Your task to perform on an android device: Check the weather Image 0: 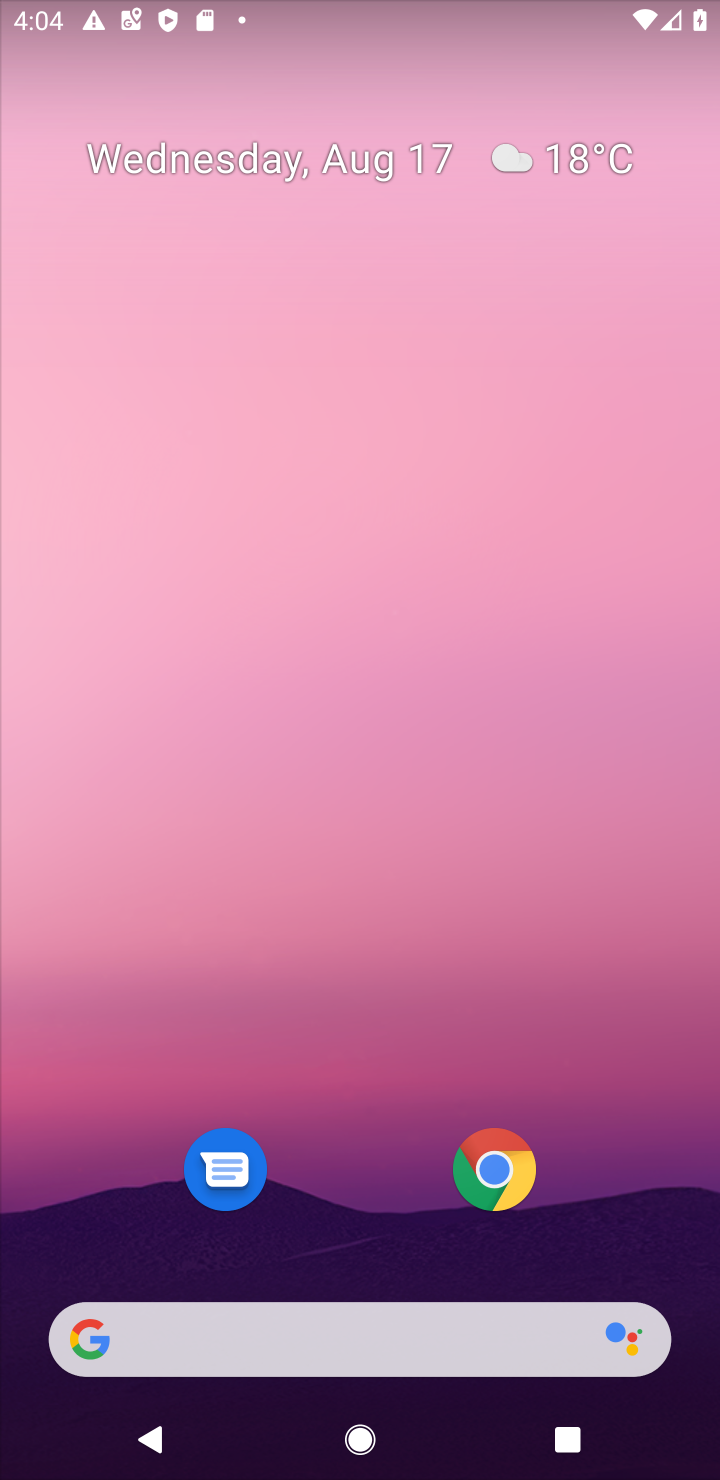
Step 0: press home button
Your task to perform on an android device: Check the weather Image 1: 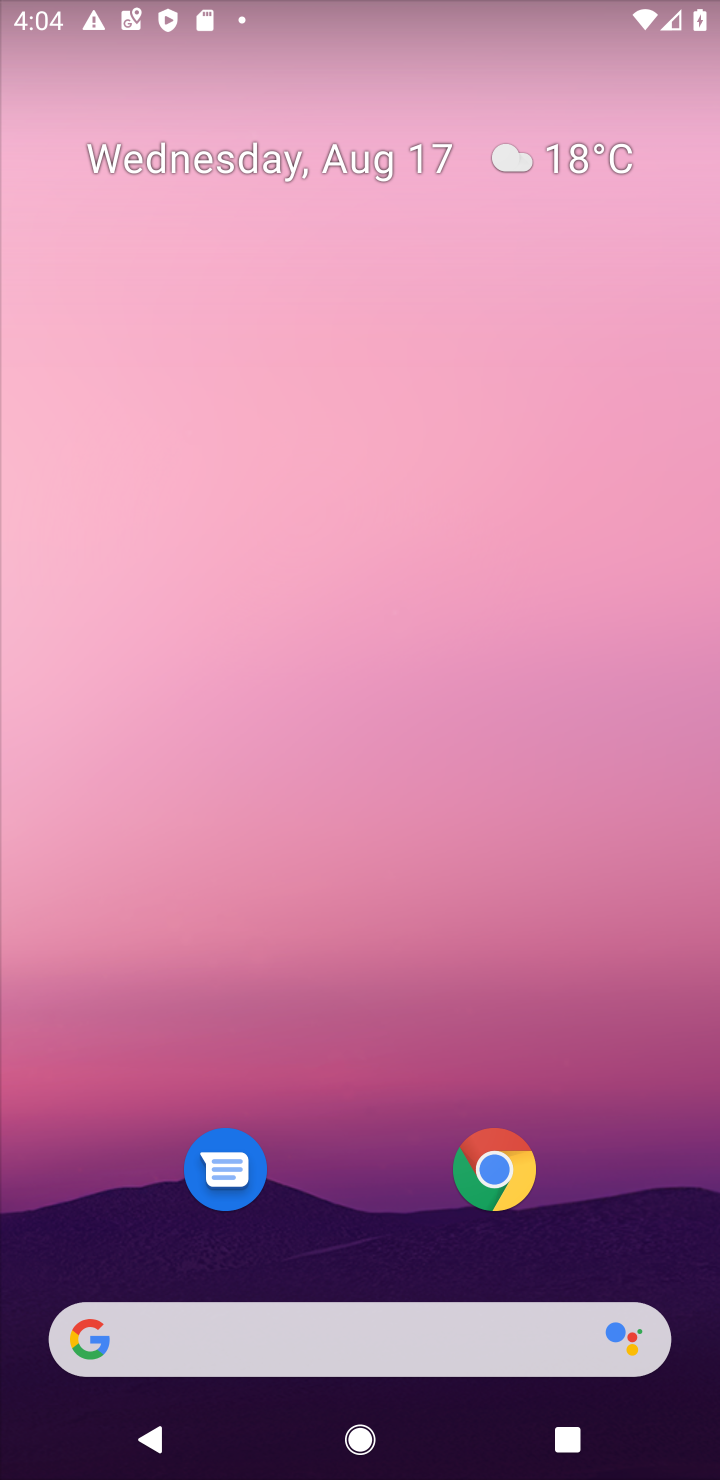
Step 1: drag from (301, 1209) to (388, 78)
Your task to perform on an android device: Check the weather Image 2: 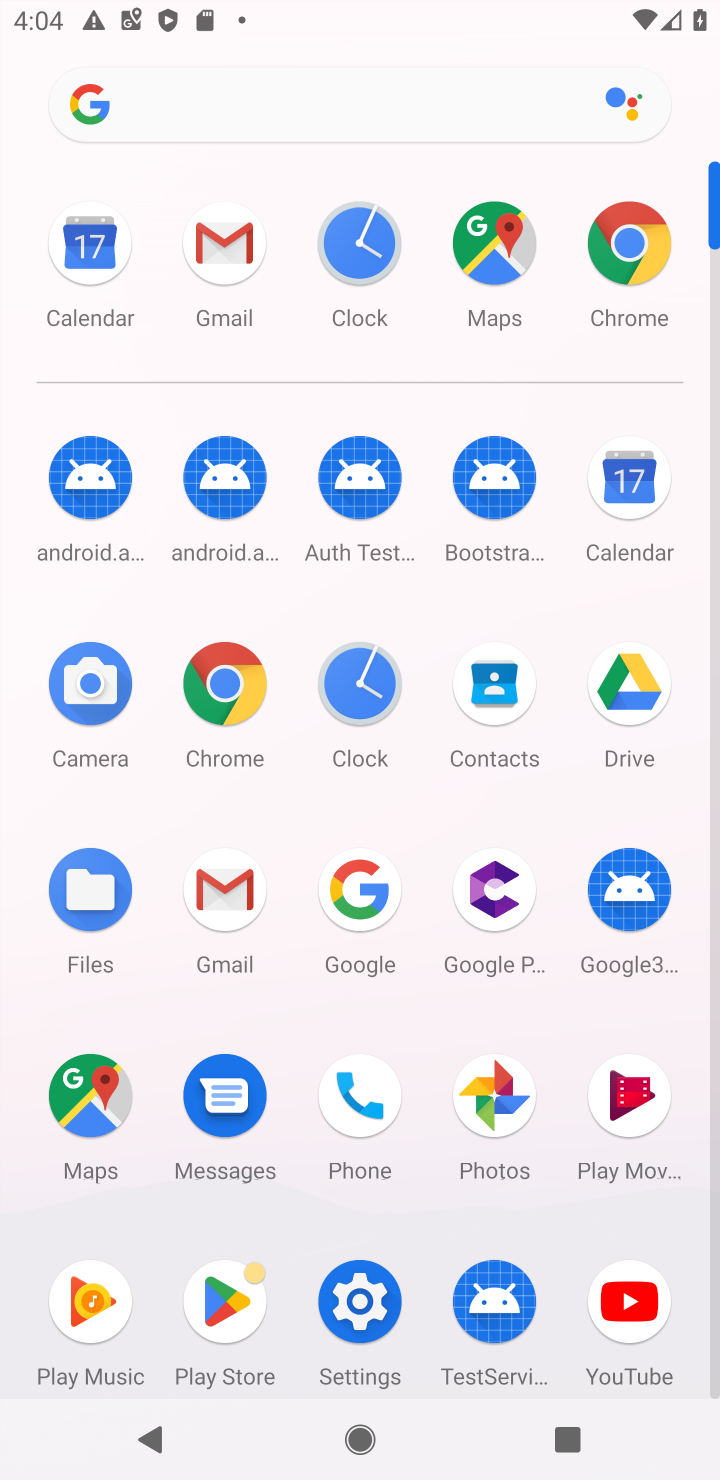
Step 2: click (223, 680)
Your task to perform on an android device: Check the weather Image 3: 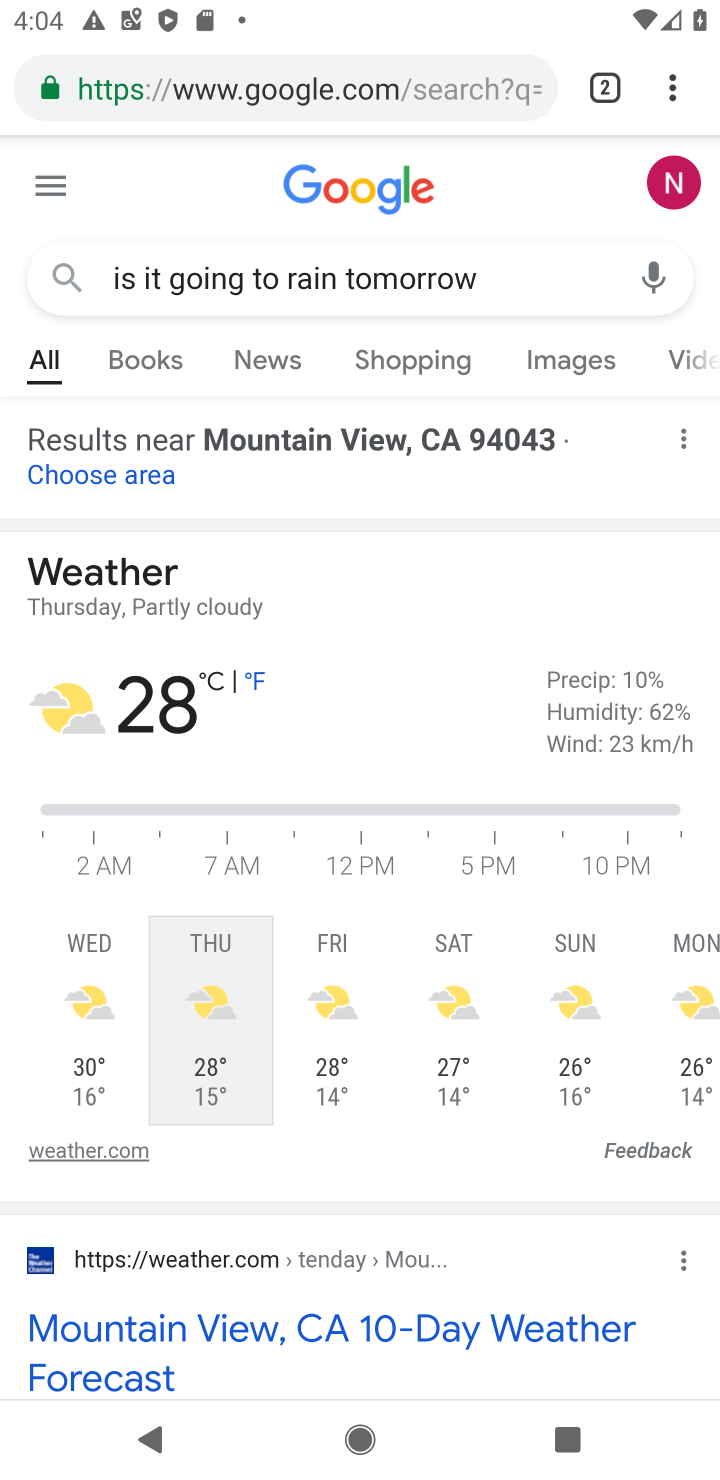
Step 3: click (408, 85)
Your task to perform on an android device: Check the weather Image 4: 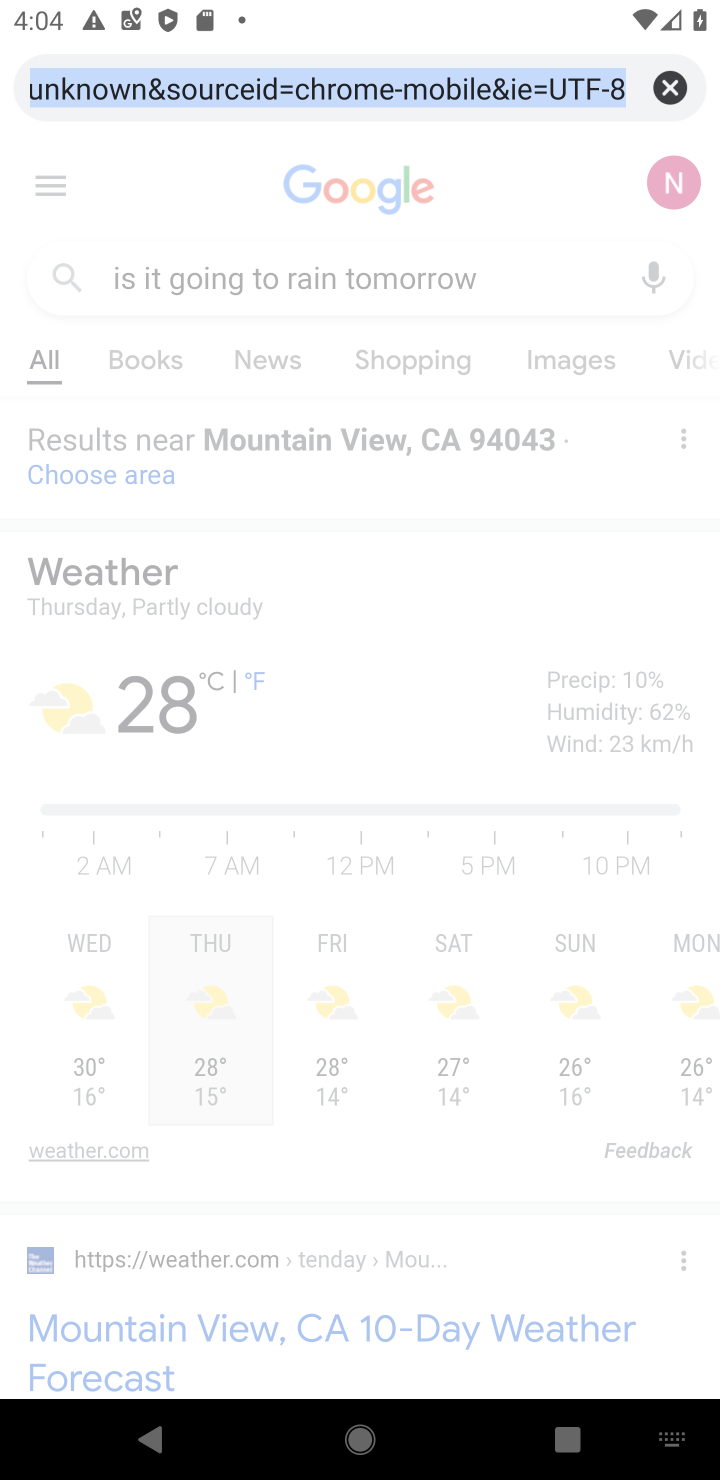
Step 4: type "Check the weather"
Your task to perform on an android device: Check the weather Image 5: 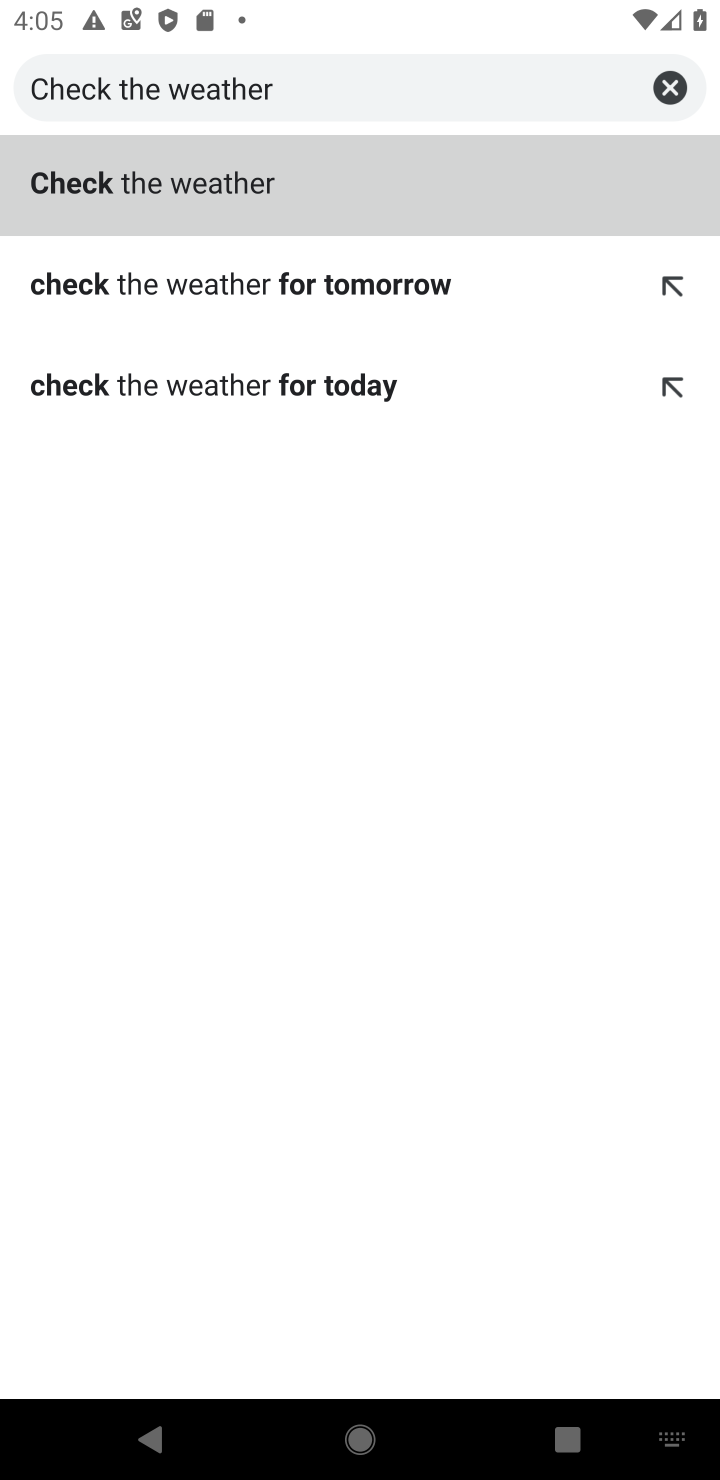
Step 5: click (89, 188)
Your task to perform on an android device: Check the weather Image 6: 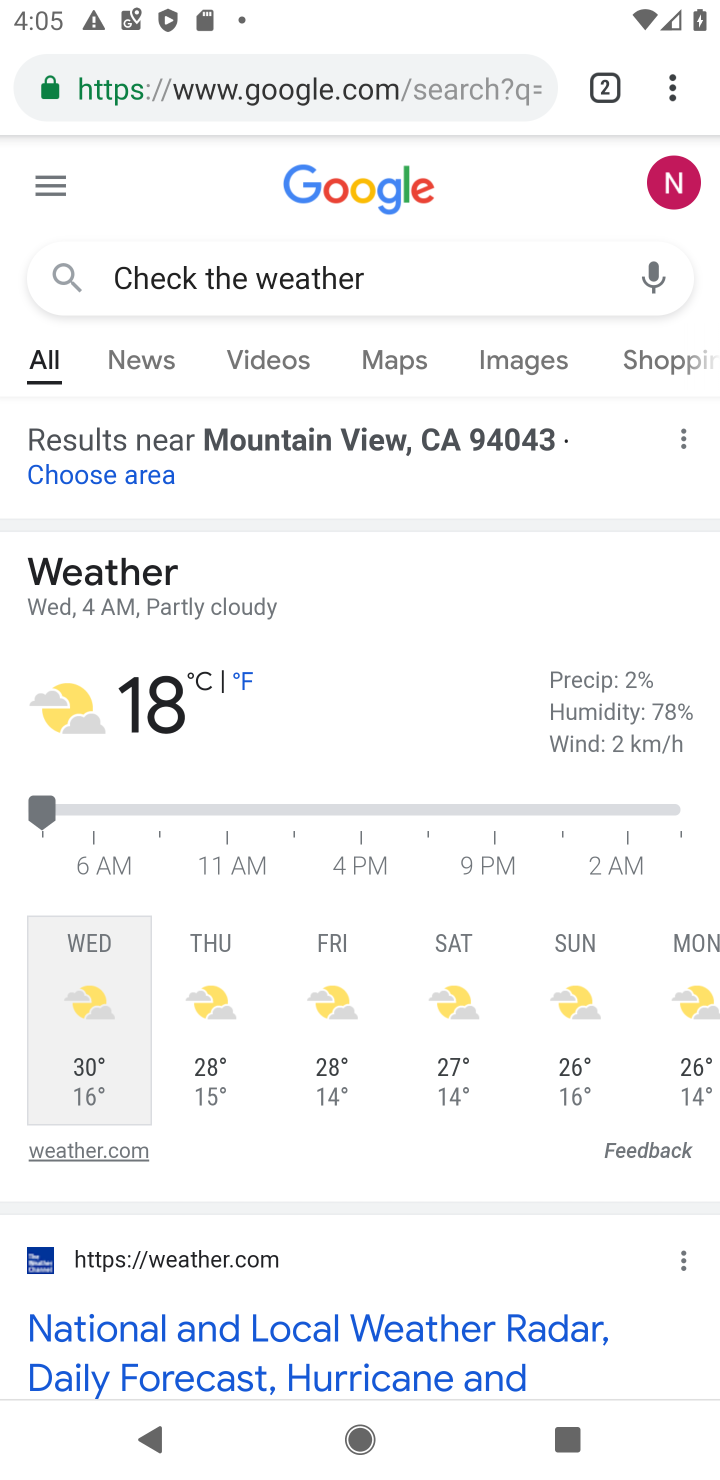
Step 6: task complete